Your task to perform on an android device: change notifications settings Image 0: 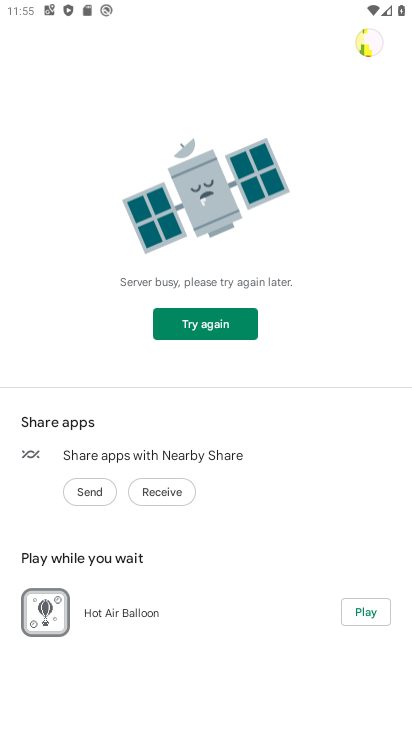
Step 0: press home button
Your task to perform on an android device: change notifications settings Image 1: 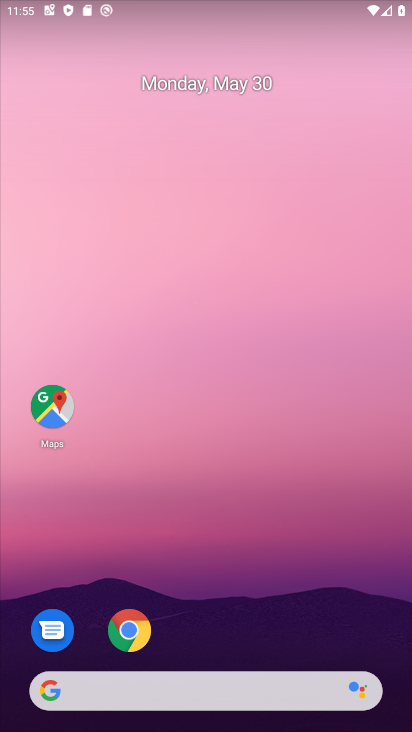
Step 1: drag from (166, 697) to (340, 70)
Your task to perform on an android device: change notifications settings Image 2: 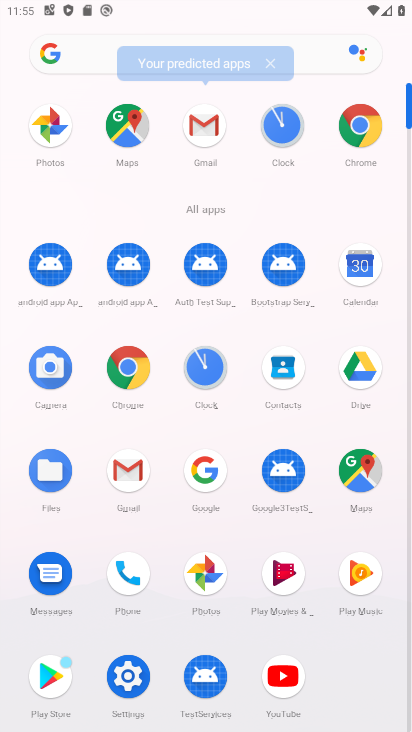
Step 2: click (123, 677)
Your task to perform on an android device: change notifications settings Image 3: 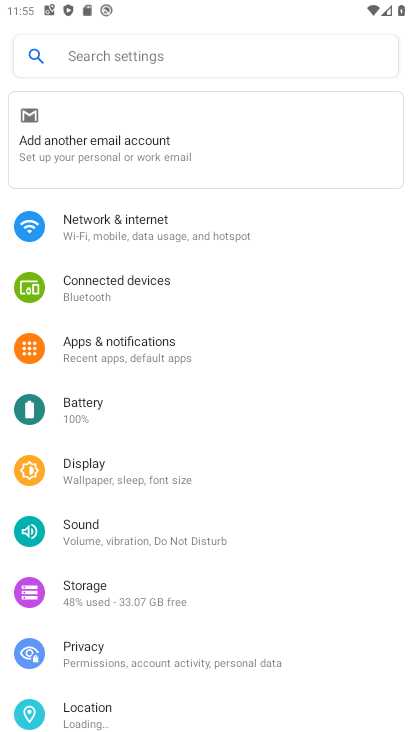
Step 3: click (170, 346)
Your task to perform on an android device: change notifications settings Image 4: 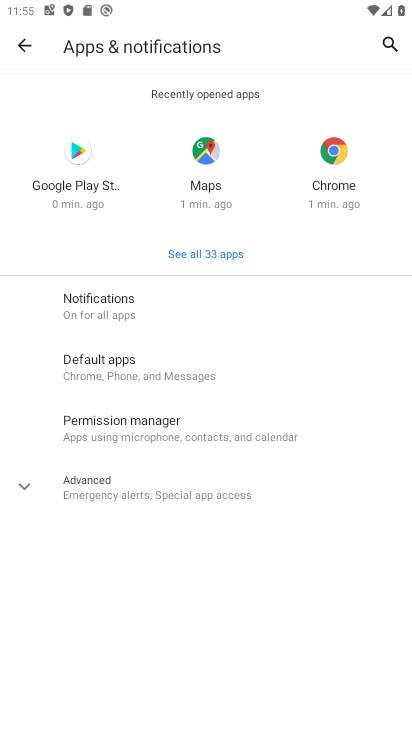
Step 4: click (109, 302)
Your task to perform on an android device: change notifications settings Image 5: 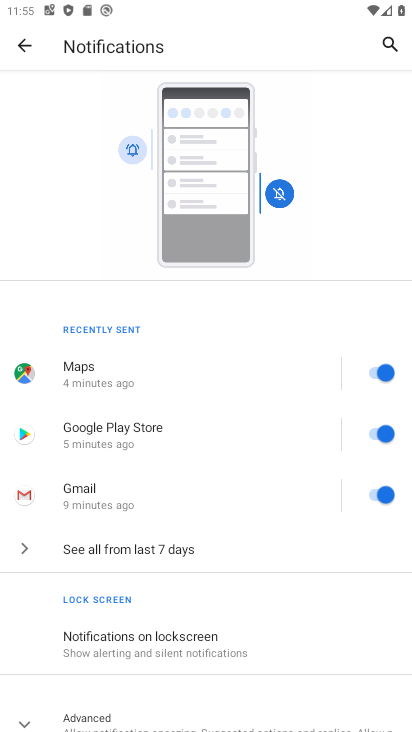
Step 5: task complete